Your task to perform on an android device: turn off wifi Image 0: 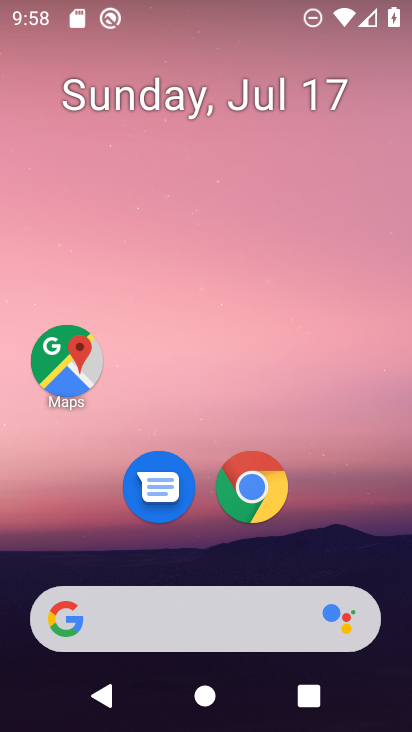
Step 0: drag from (189, 111) to (199, 316)
Your task to perform on an android device: turn off wifi Image 1: 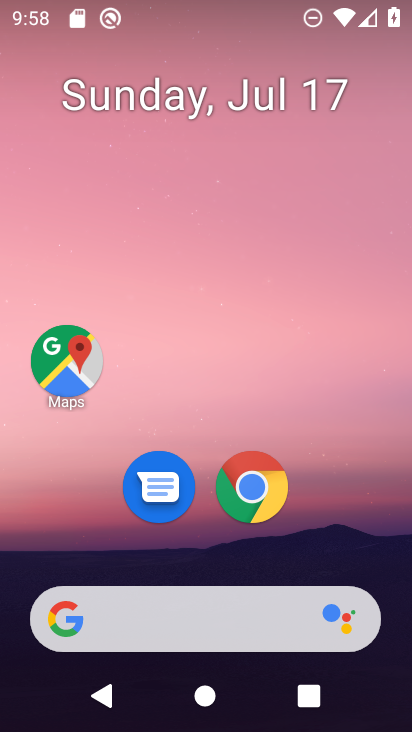
Step 1: drag from (201, 1) to (64, 500)
Your task to perform on an android device: turn off wifi Image 2: 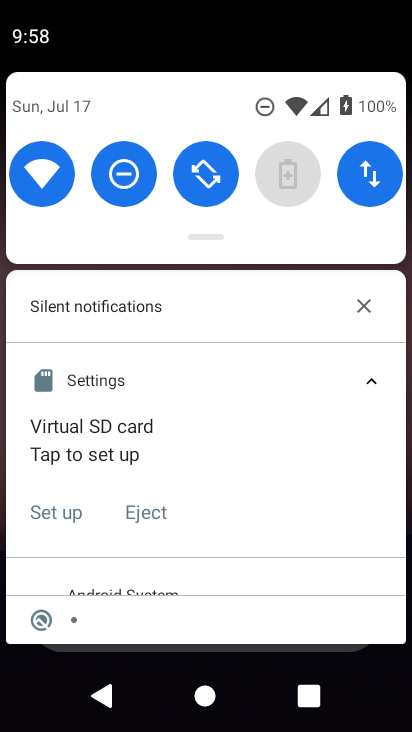
Step 2: click (52, 170)
Your task to perform on an android device: turn off wifi Image 3: 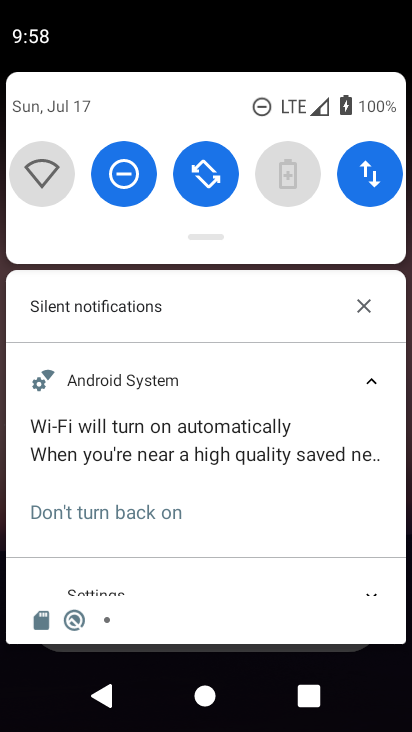
Step 3: task complete